Your task to perform on an android device: Do I have any events tomorrow? Image 0: 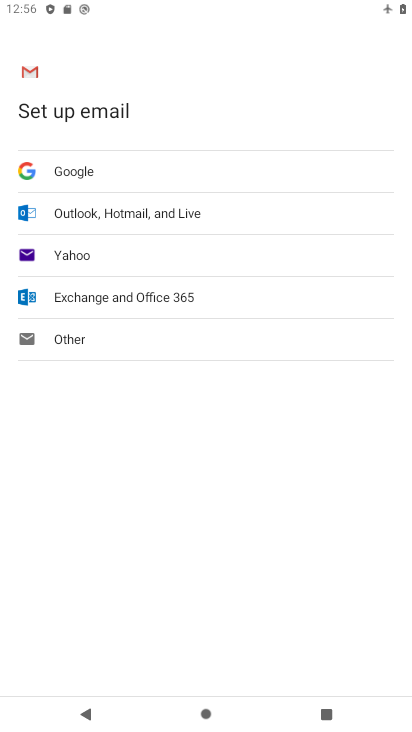
Step 0: press home button
Your task to perform on an android device: Do I have any events tomorrow? Image 1: 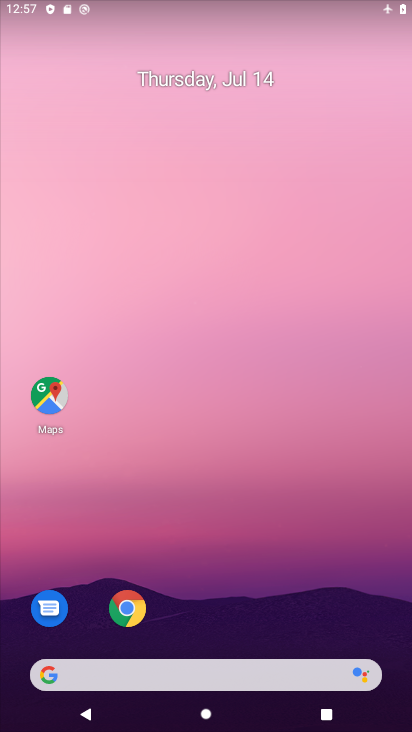
Step 1: drag from (388, 628) to (369, 144)
Your task to perform on an android device: Do I have any events tomorrow? Image 2: 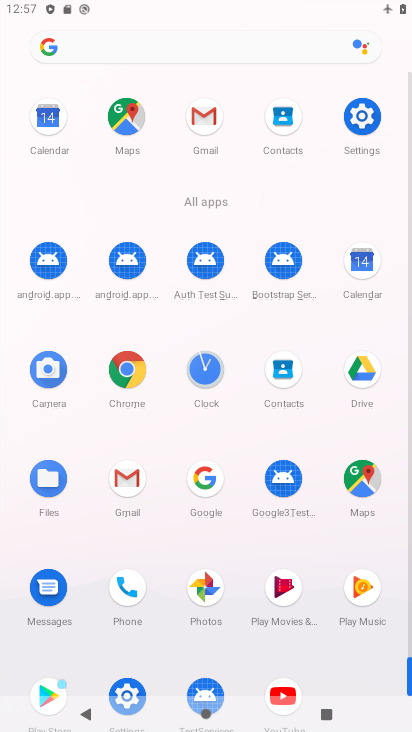
Step 2: click (360, 263)
Your task to perform on an android device: Do I have any events tomorrow? Image 3: 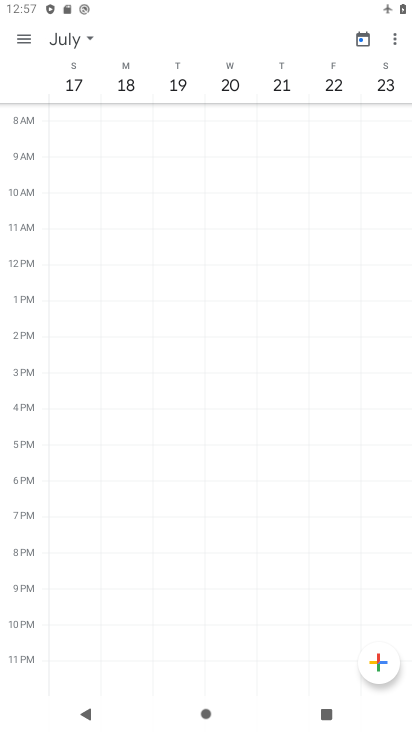
Step 3: click (83, 39)
Your task to perform on an android device: Do I have any events tomorrow? Image 4: 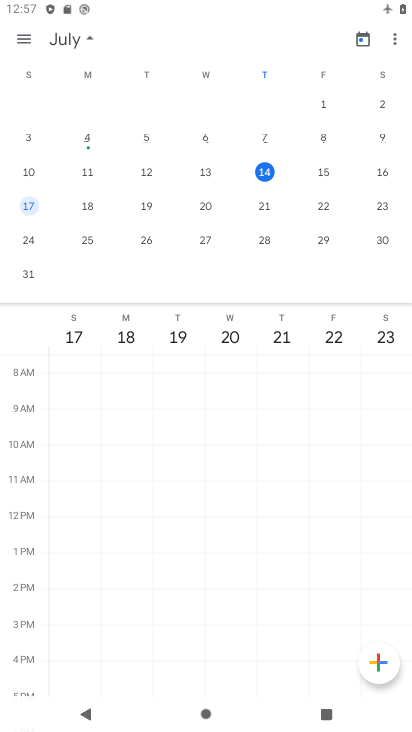
Step 4: click (14, 40)
Your task to perform on an android device: Do I have any events tomorrow? Image 5: 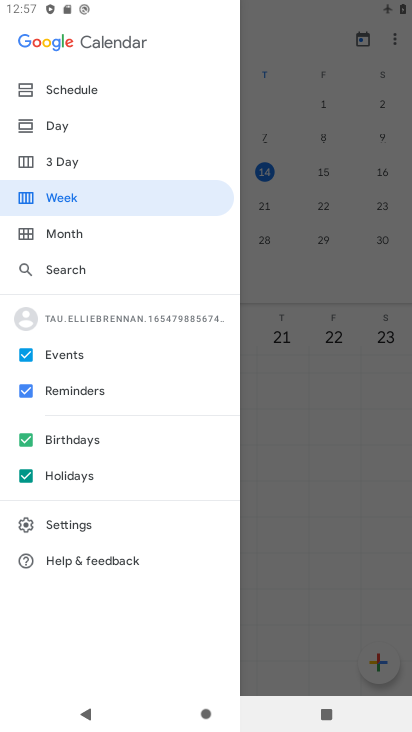
Step 5: click (56, 124)
Your task to perform on an android device: Do I have any events tomorrow? Image 6: 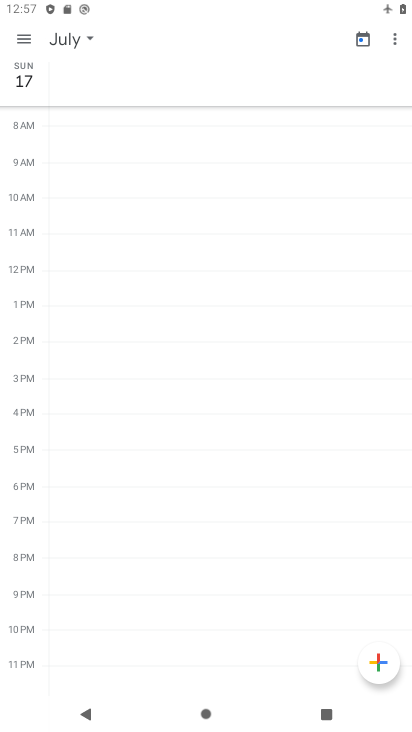
Step 6: click (91, 41)
Your task to perform on an android device: Do I have any events tomorrow? Image 7: 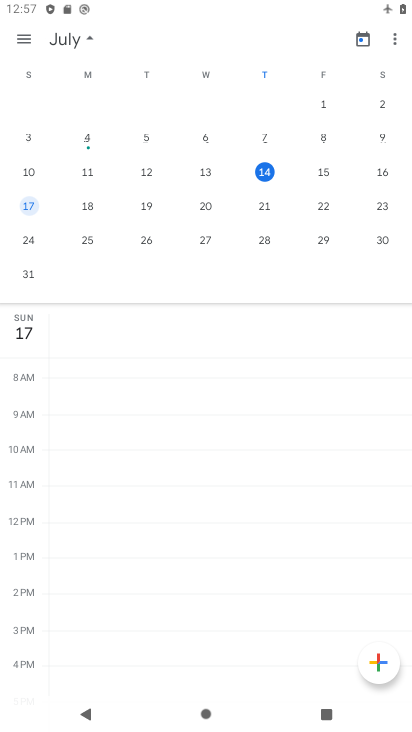
Step 7: click (317, 172)
Your task to perform on an android device: Do I have any events tomorrow? Image 8: 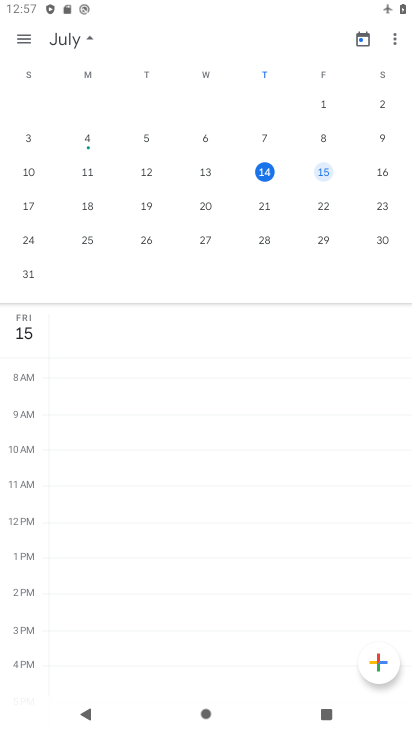
Step 8: task complete